Your task to perform on an android device: Open the map Image 0: 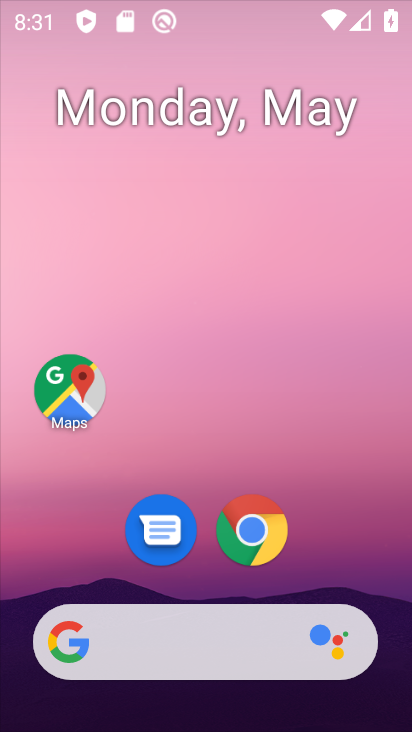
Step 0: drag from (194, 618) to (232, 269)
Your task to perform on an android device: Open the map Image 1: 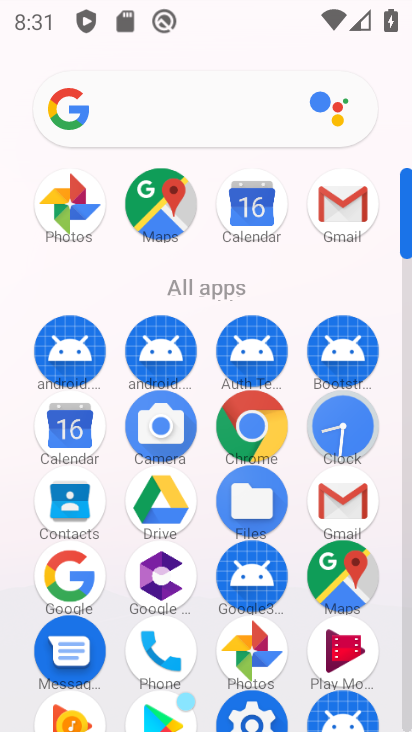
Step 1: click (164, 215)
Your task to perform on an android device: Open the map Image 2: 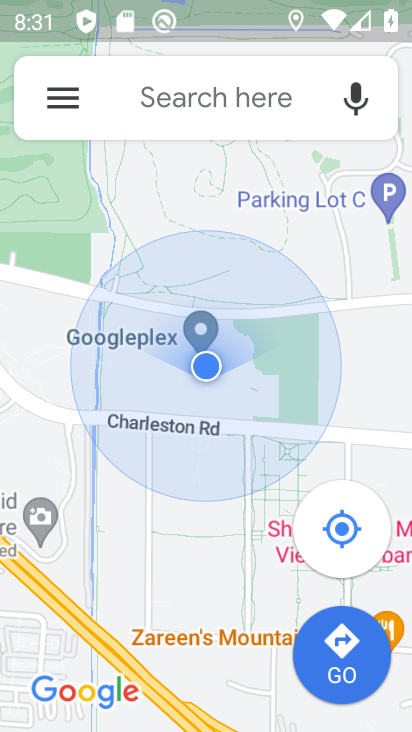
Step 2: task complete